Your task to perform on an android device: open app "Lyft - Rideshare, Bikes, Scooters & Transit" Image 0: 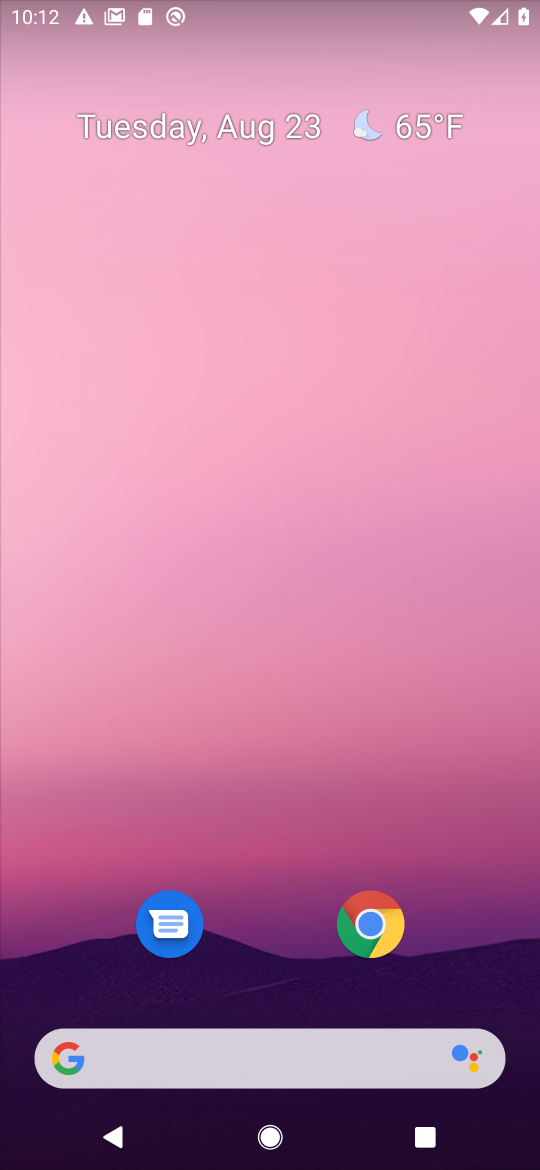
Step 0: drag from (319, 1054) to (256, 44)
Your task to perform on an android device: open app "Lyft - Rideshare, Bikes, Scooters & Transit" Image 1: 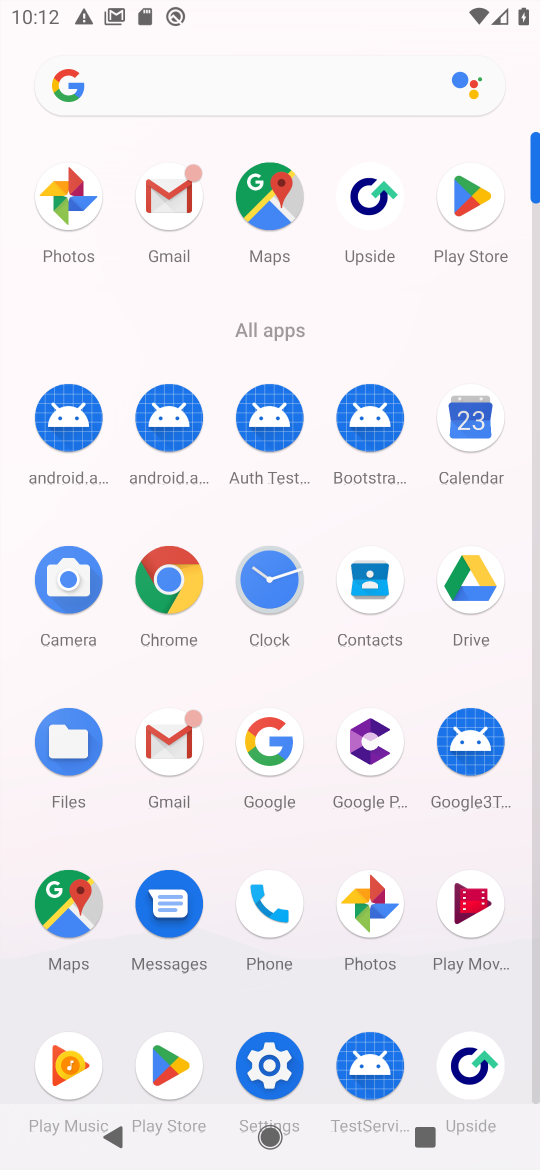
Step 1: click (474, 229)
Your task to perform on an android device: open app "Lyft - Rideshare, Bikes, Scooters & Transit" Image 2: 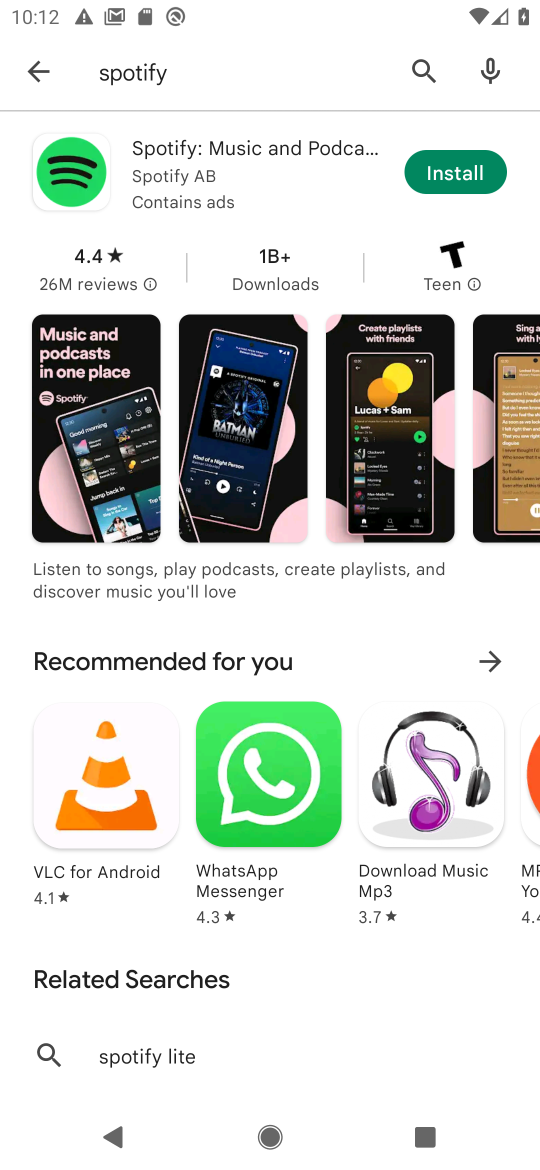
Step 2: click (440, 69)
Your task to perform on an android device: open app "Lyft - Rideshare, Bikes, Scooters & Transit" Image 3: 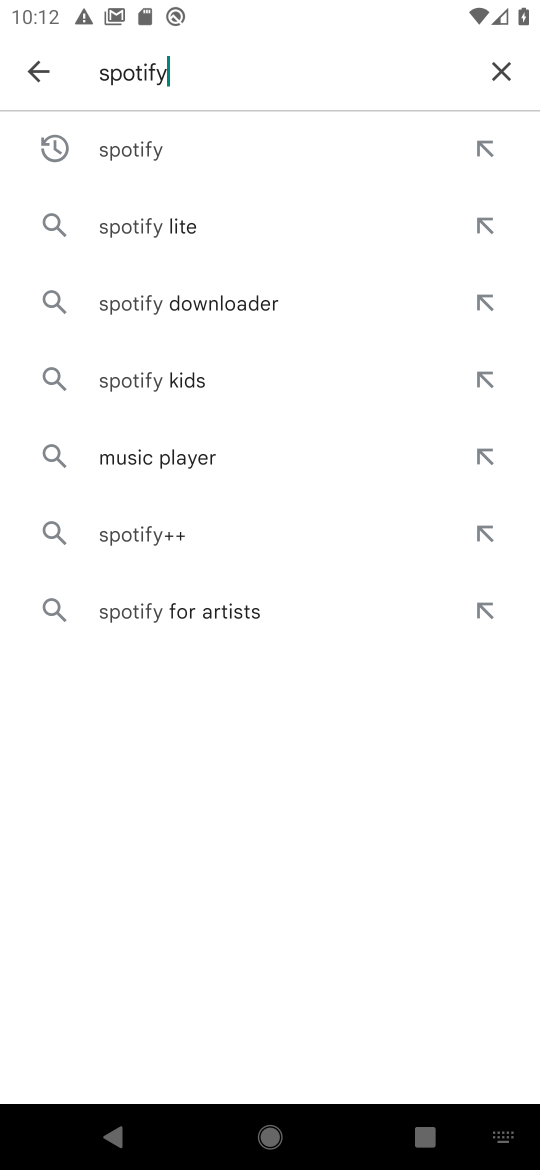
Step 3: click (517, 75)
Your task to perform on an android device: open app "Lyft - Rideshare, Bikes, Scooters & Transit" Image 4: 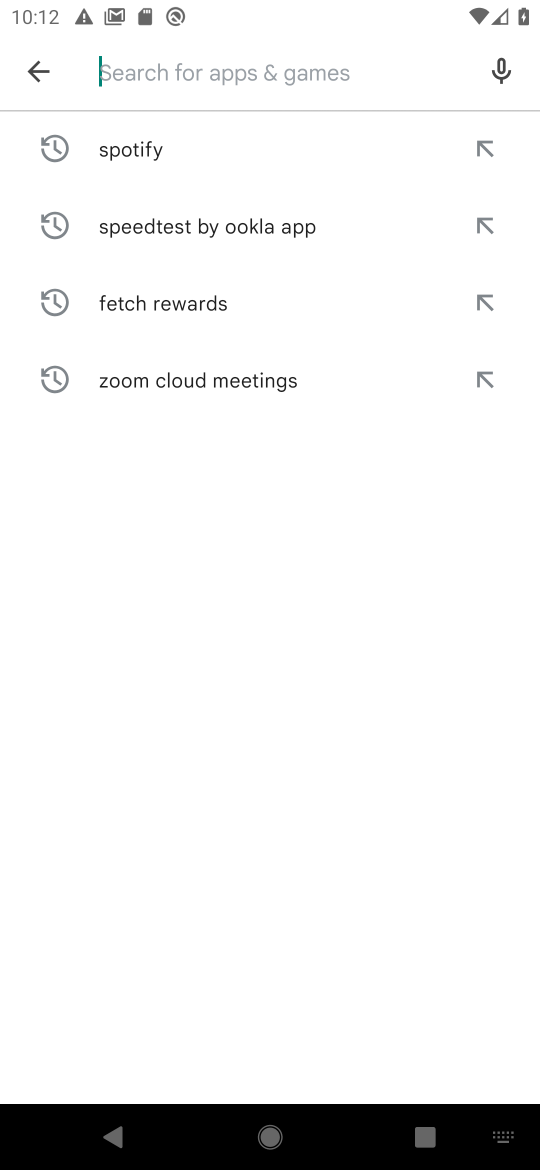
Step 4: type "lyft"
Your task to perform on an android device: open app "Lyft - Rideshare, Bikes, Scooters & Transit" Image 5: 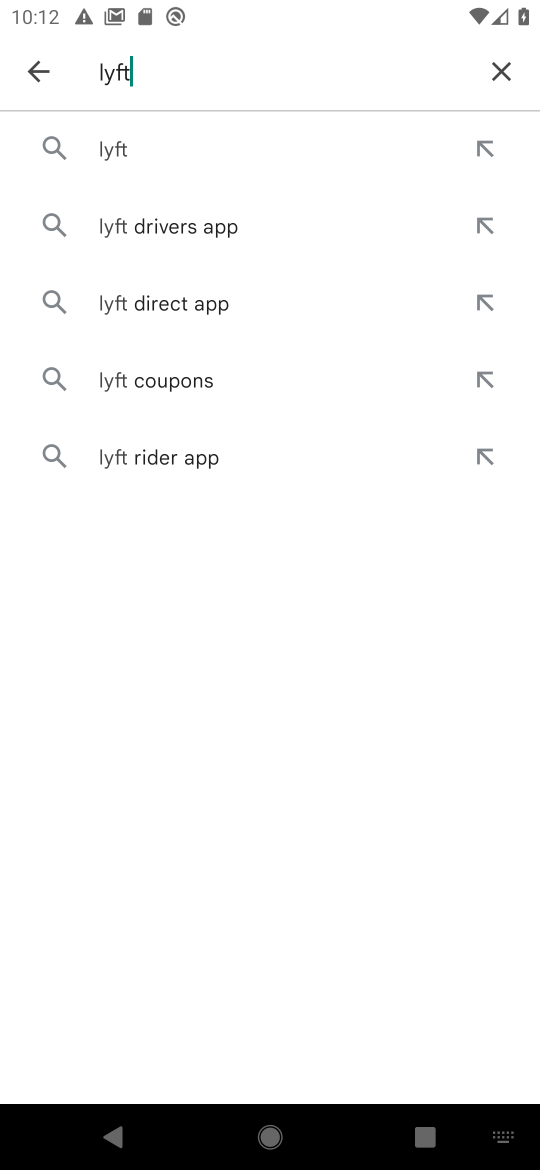
Step 5: click (143, 142)
Your task to perform on an android device: open app "Lyft - Rideshare, Bikes, Scooters & Transit" Image 6: 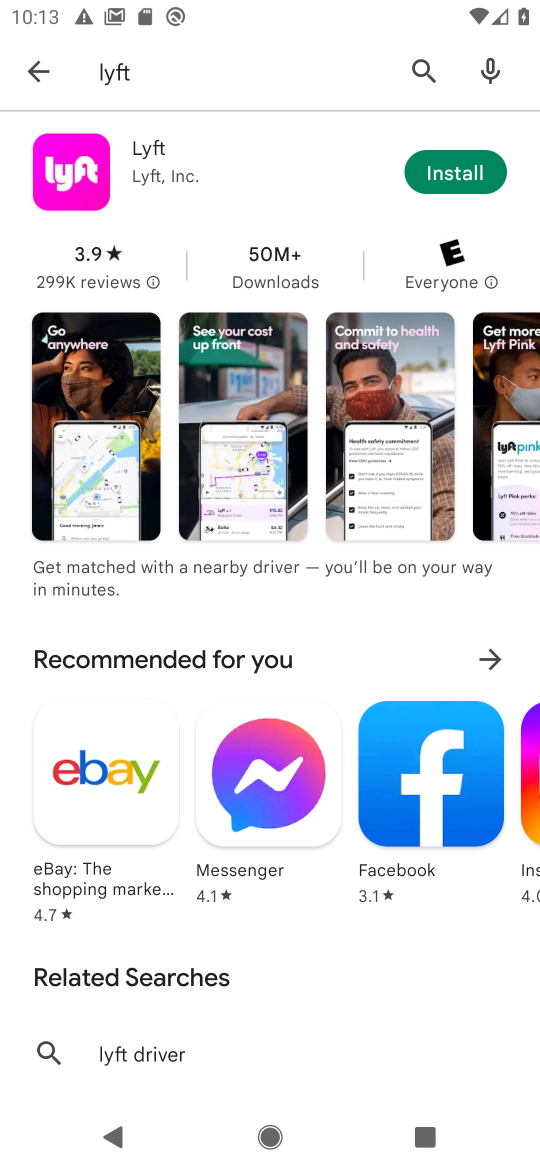
Step 6: task complete